Your task to perform on an android device: set the stopwatch Image 0: 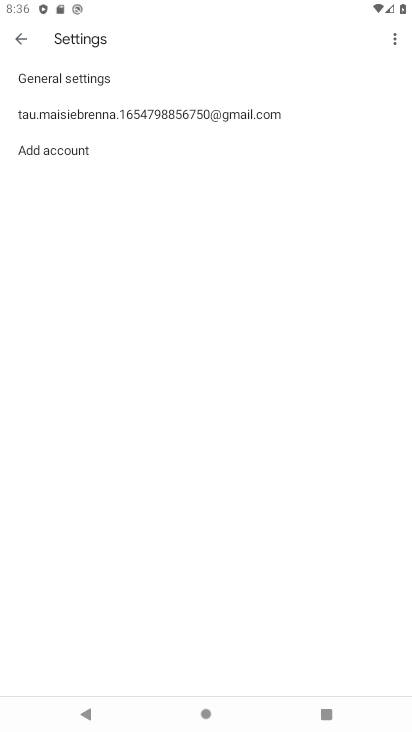
Step 0: click (12, 35)
Your task to perform on an android device: set the stopwatch Image 1: 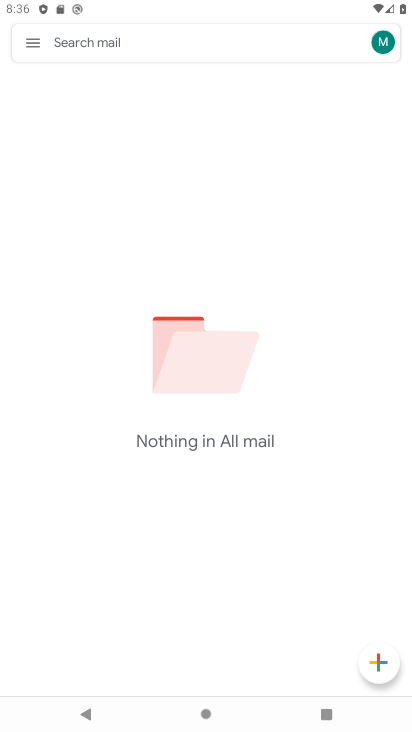
Step 1: press back button
Your task to perform on an android device: set the stopwatch Image 2: 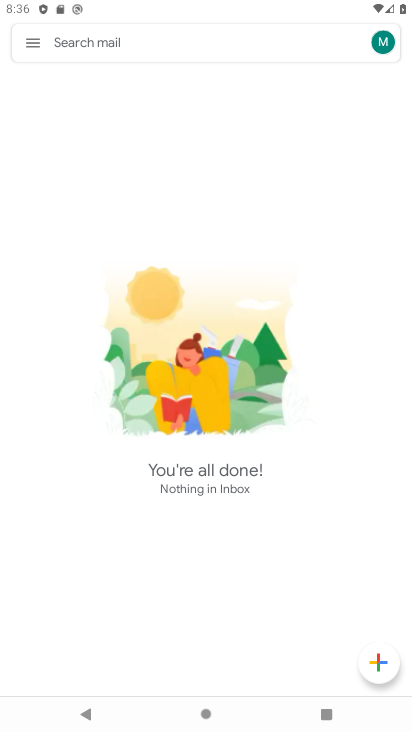
Step 2: press back button
Your task to perform on an android device: set the stopwatch Image 3: 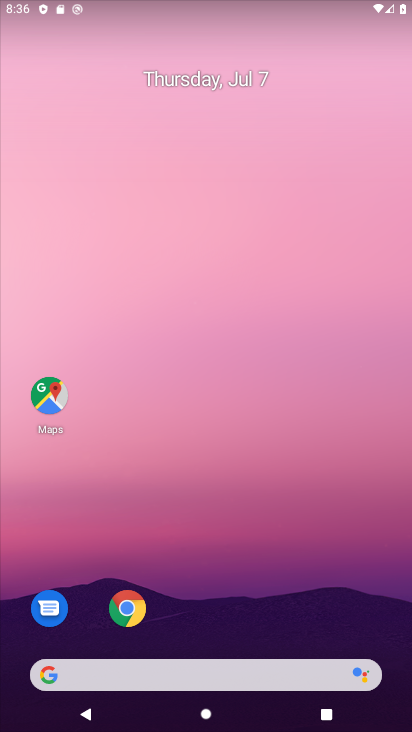
Step 3: drag from (139, 341) to (104, 126)
Your task to perform on an android device: set the stopwatch Image 4: 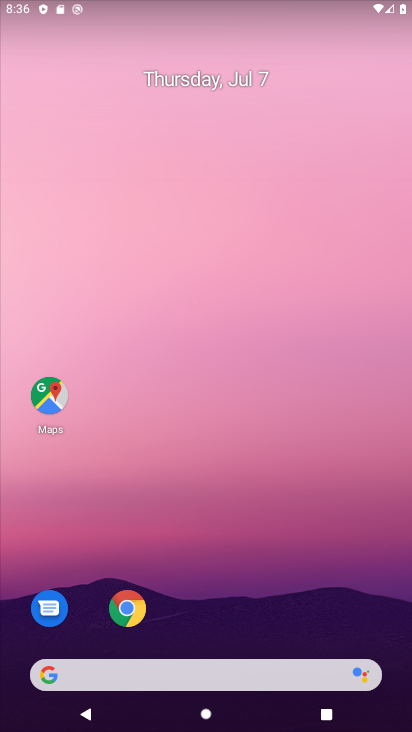
Step 4: drag from (257, 660) to (230, 249)
Your task to perform on an android device: set the stopwatch Image 5: 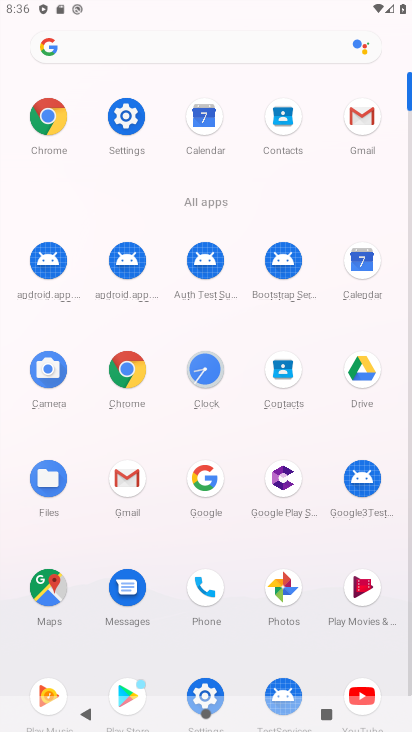
Step 5: click (207, 367)
Your task to perform on an android device: set the stopwatch Image 6: 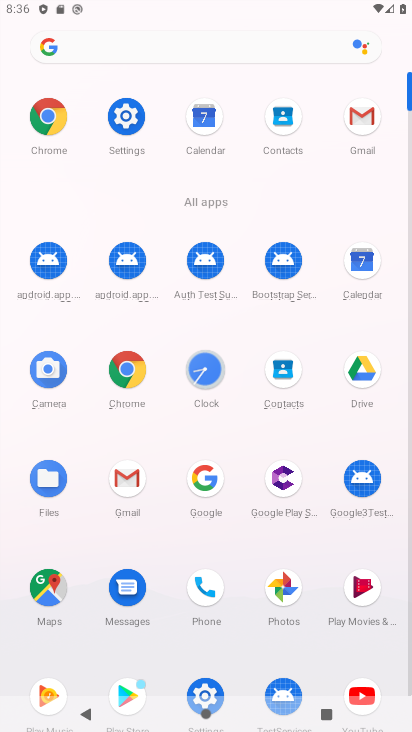
Step 6: click (208, 368)
Your task to perform on an android device: set the stopwatch Image 7: 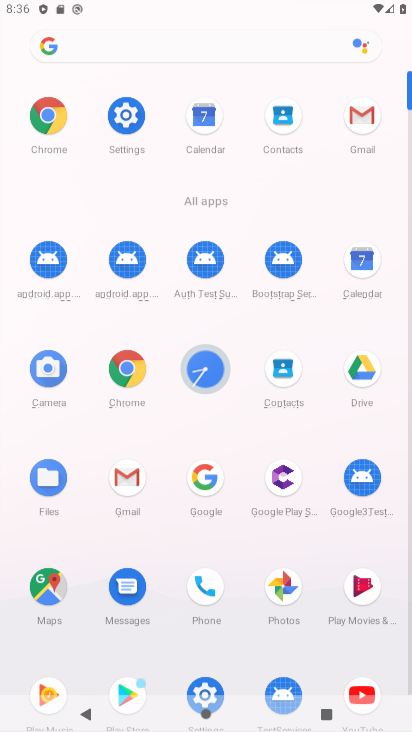
Step 7: click (208, 368)
Your task to perform on an android device: set the stopwatch Image 8: 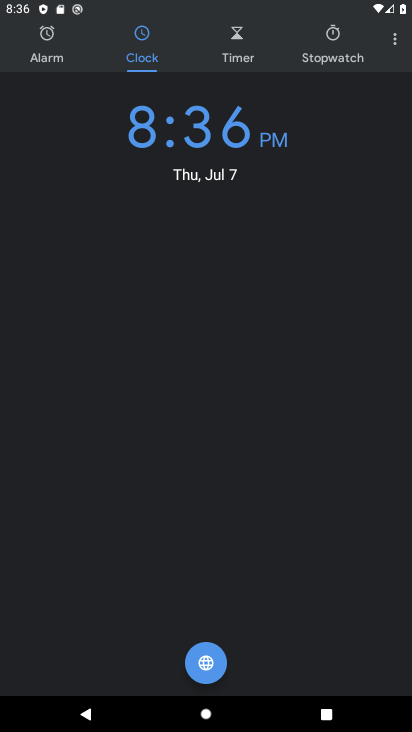
Step 8: click (208, 368)
Your task to perform on an android device: set the stopwatch Image 9: 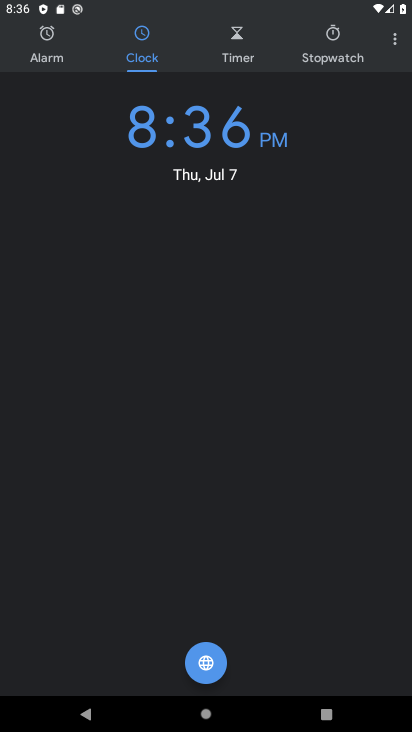
Step 9: click (324, 45)
Your task to perform on an android device: set the stopwatch Image 10: 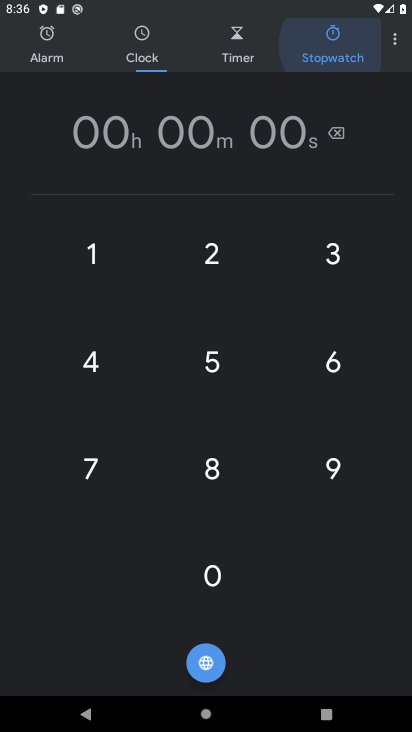
Step 10: click (329, 48)
Your task to perform on an android device: set the stopwatch Image 11: 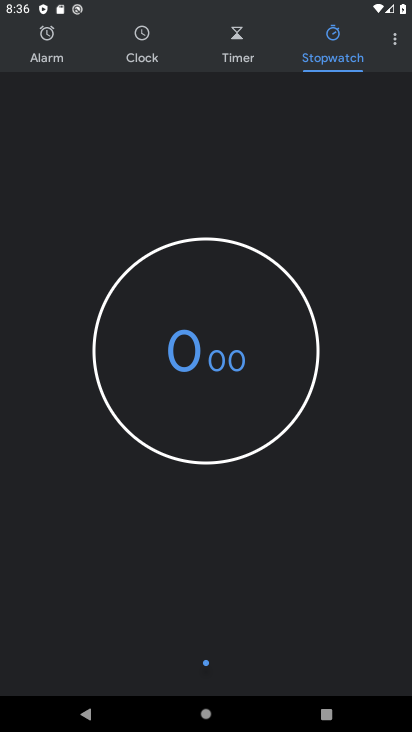
Step 11: click (330, 47)
Your task to perform on an android device: set the stopwatch Image 12: 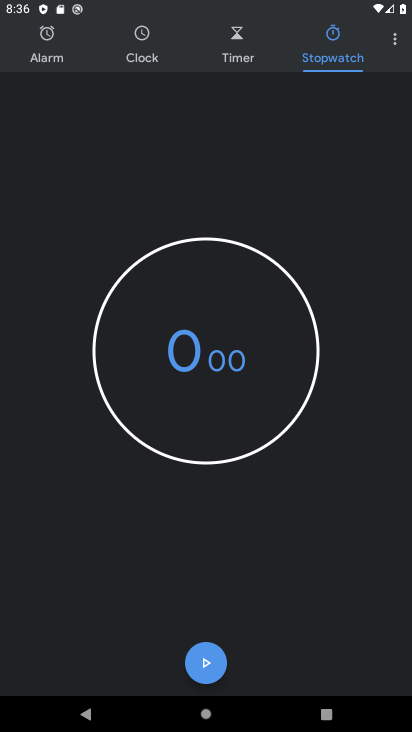
Step 12: click (205, 663)
Your task to perform on an android device: set the stopwatch Image 13: 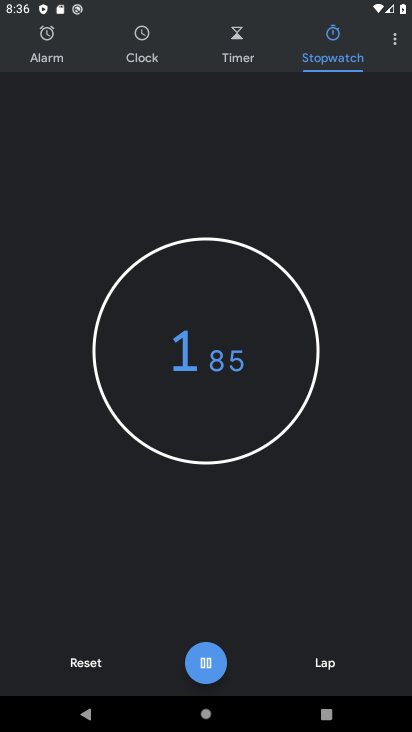
Step 13: click (208, 662)
Your task to perform on an android device: set the stopwatch Image 14: 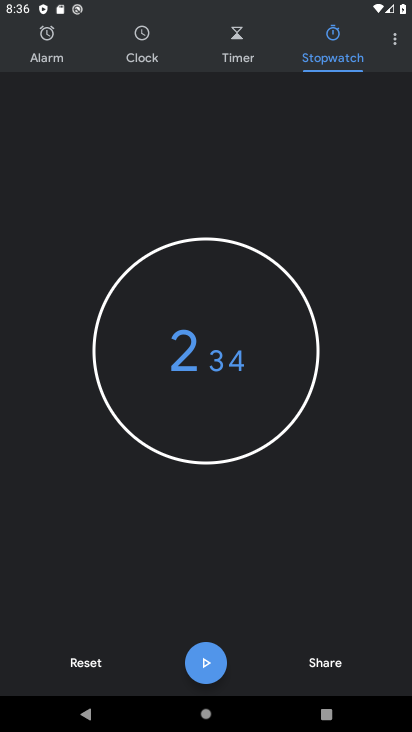
Step 14: task complete